Your task to perform on an android device: create a new album in the google photos Image 0: 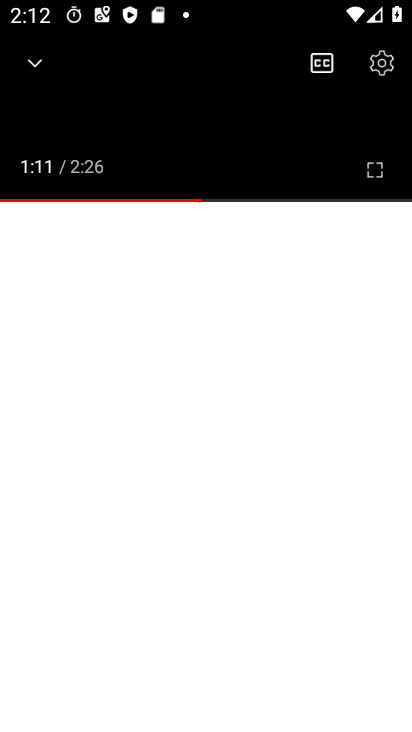
Step 0: press home button
Your task to perform on an android device: create a new album in the google photos Image 1: 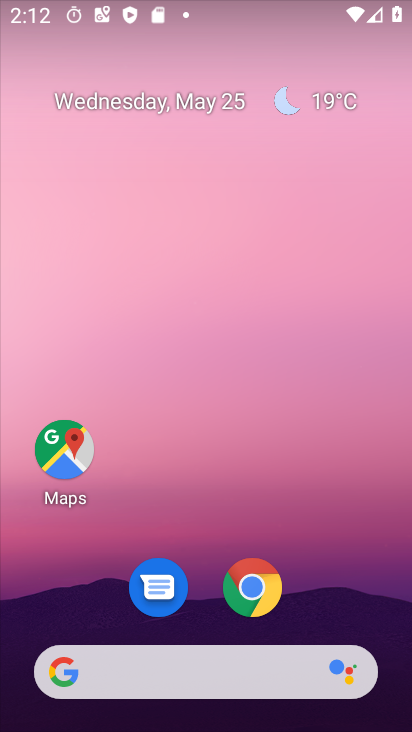
Step 1: drag from (208, 614) to (254, 116)
Your task to perform on an android device: create a new album in the google photos Image 2: 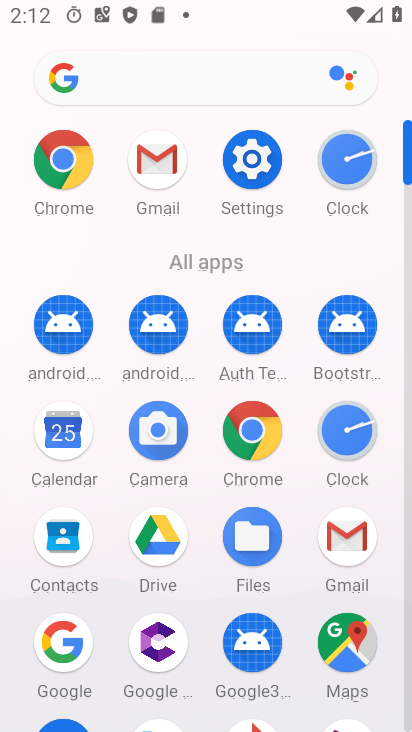
Step 2: drag from (214, 578) to (217, 210)
Your task to perform on an android device: create a new album in the google photos Image 3: 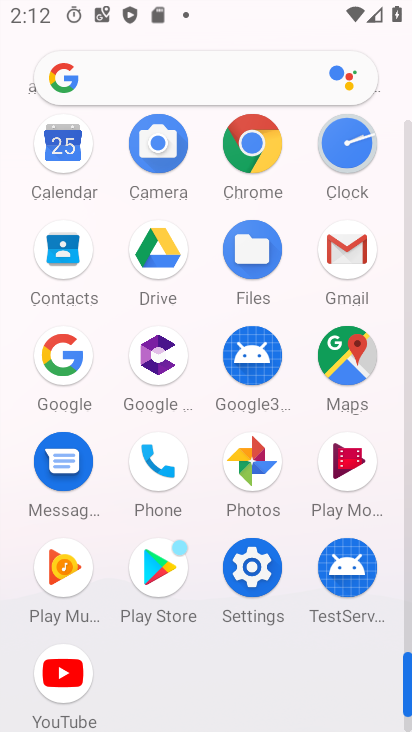
Step 3: click (255, 469)
Your task to perform on an android device: create a new album in the google photos Image 4: 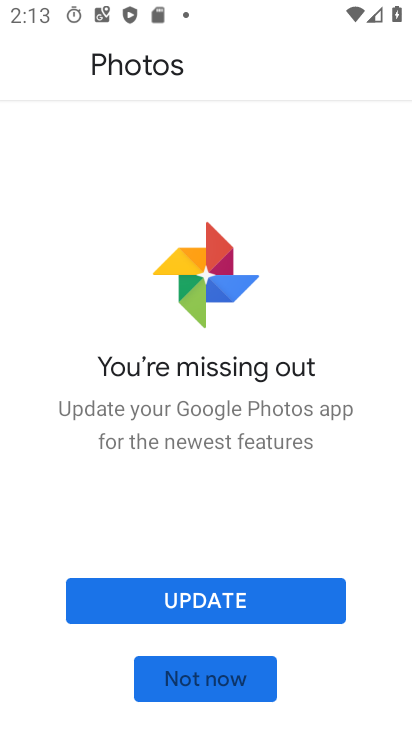
Step 4: click (211, 603)
Your task to perform on an android device: create a new album in the google photos Image 5: 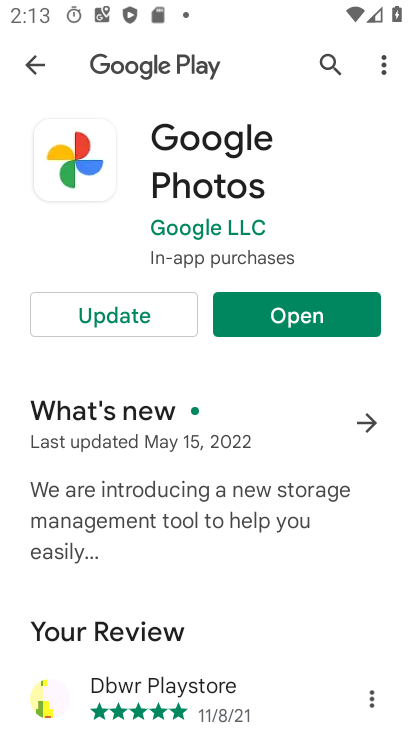
Step 5: click (110, 294)
Your task to perform on an android device: create a new album in the google photos Image 6: 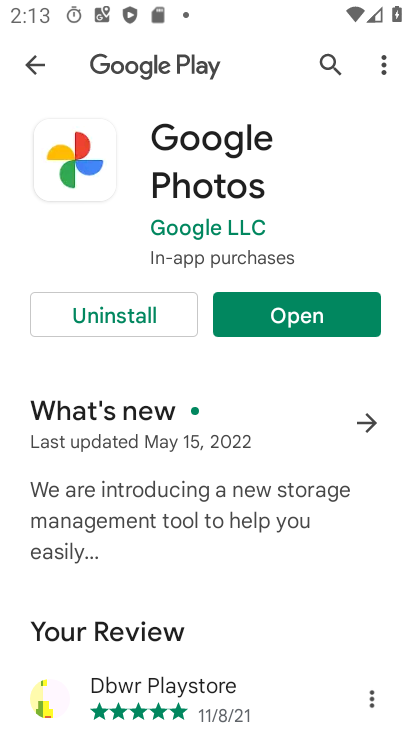
Step 6: click (280, 324)
Your task to perform on an android device: create a new album in the google photos Image 7: 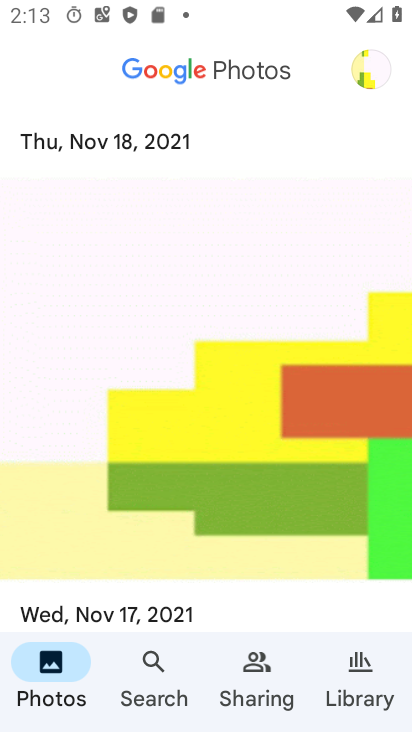
Step 7: drag from (243, 465) to (254, 97)
Your task to perform on an android device: create a new album in the google photos Image 8: 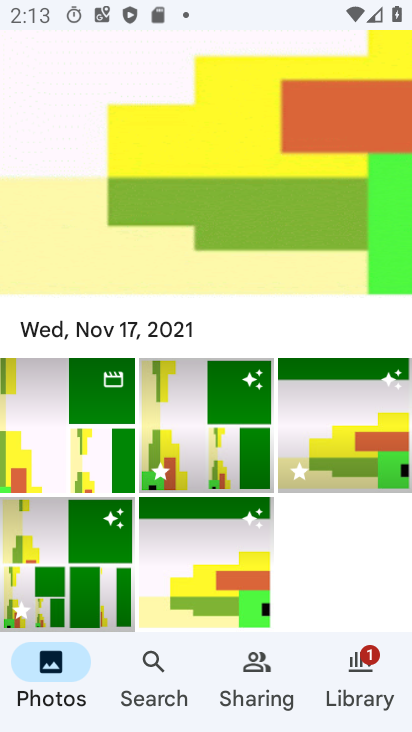
Step 8: click (368, 683)
Your task to perform on an android device: create a new album in the google photos Image 9: 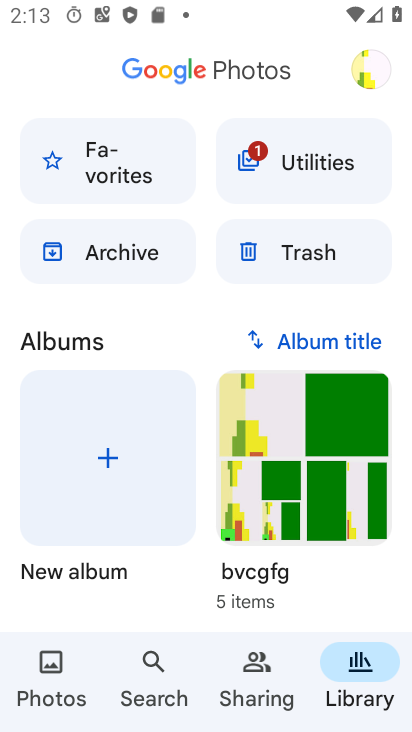
Step 9: click (118, 471)
Your task to perform on an android device: create a new album in the google photos Image 10: 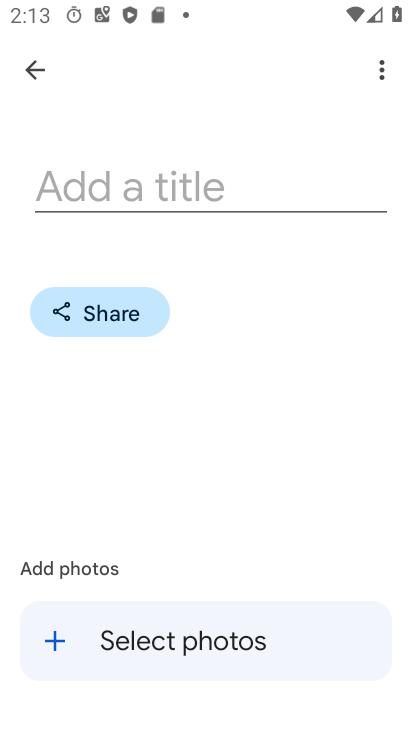
Step 10: click (230, 188)
Your task to perform on an android device: create a new album in the google photos Image 11: 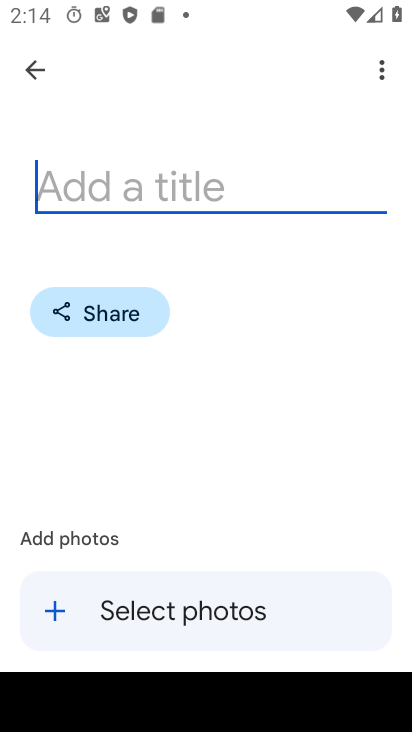
Step 11: type "fxfggf"
Your task to perform on an android device: create a new album in the google photos Image 12: 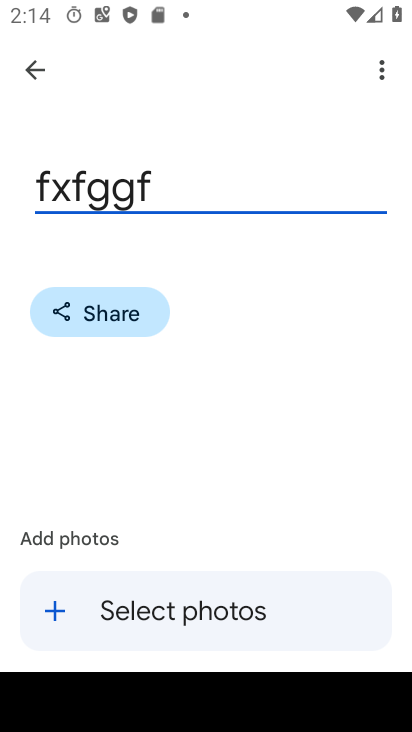
Step 12: click (46, 612)
Your task to perform on an android device: create a new album in the google photos Image 13: 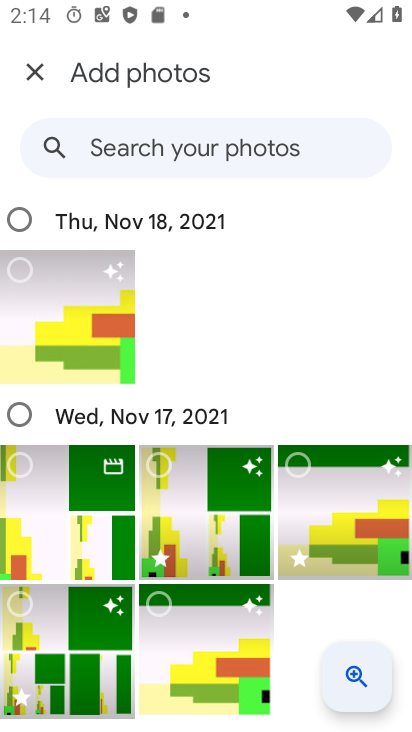
Step 13: click (20, 269)
Your task to perform on an android device: create a new album in the google photos Image 14: 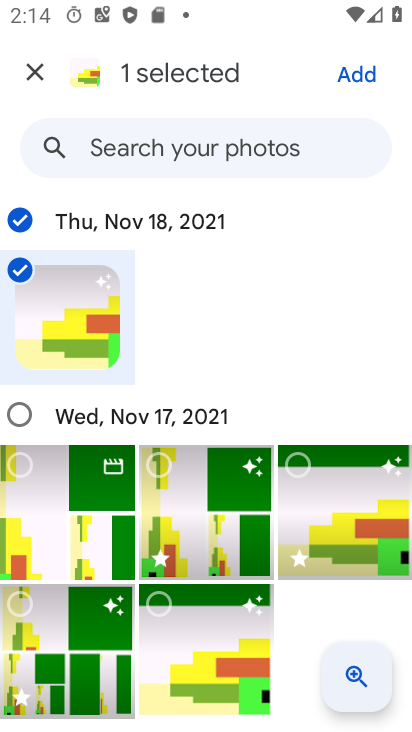
Step 14: click (339, 70)
Your task to perform on an android device: create a new album in the google photos Image 15: 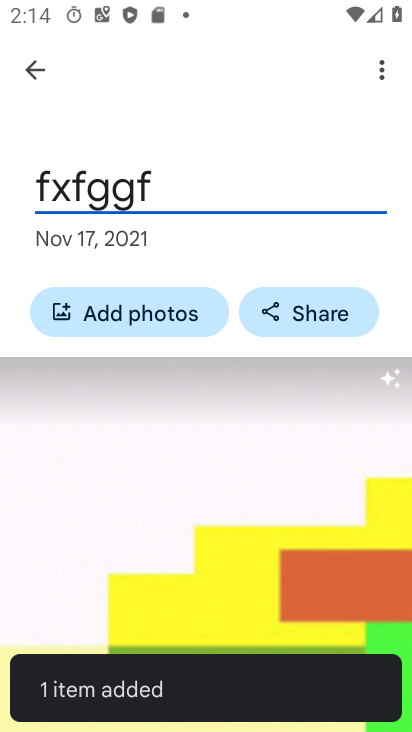
Step 15: task complete